Your task to perform on an android device: Go to Yahoo.com Image 0: 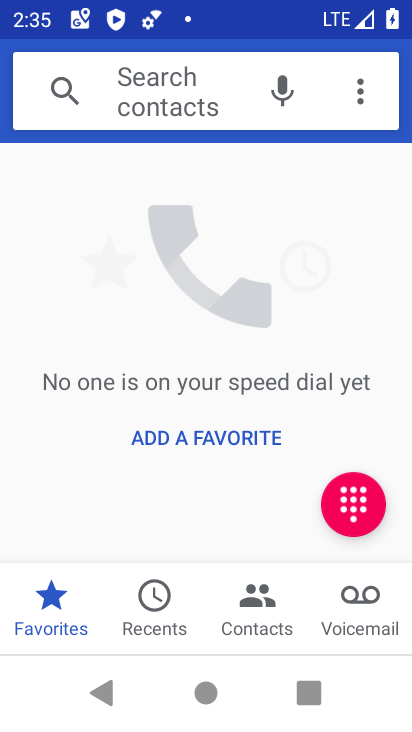
Step 0: press home button
Your task to perform on an android device: Go to Yahoo.com Image 1: 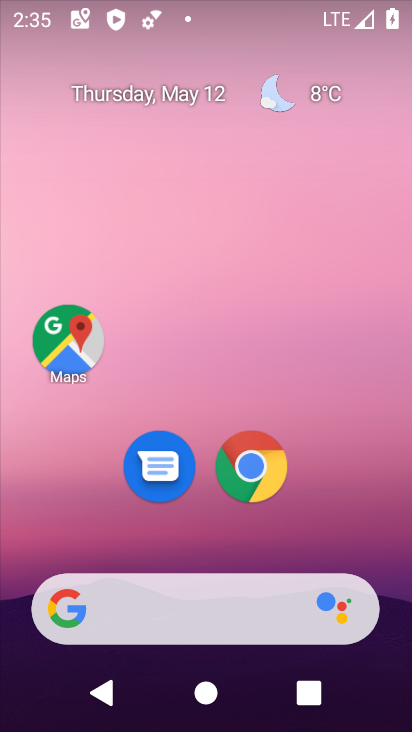
Step 1: click (273, 456)
Your task to perform on an android device: Go to Yahoo.com Image 2: 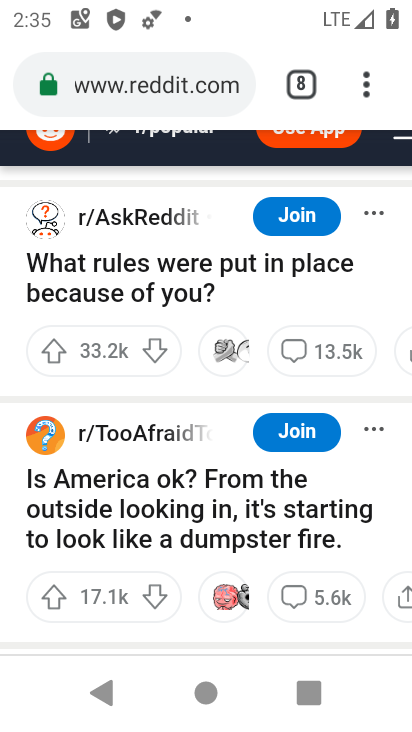
Step 2: click (305, 77)
Your task to perform on an android device: Go to Yahoo.com Image 3: 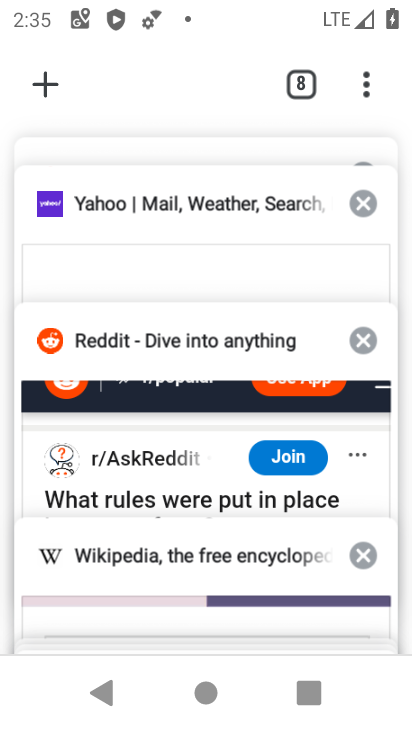
Step 3: click (162, 224)
Your task to perform on an android device: Go to Yahoo.com Image 4: 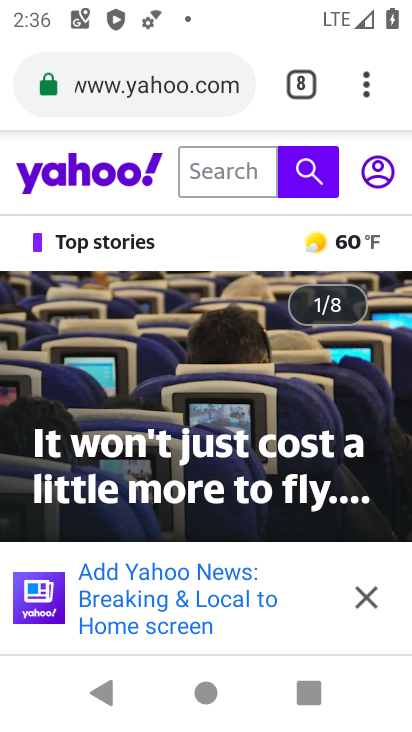
Step 4: task complete